Your task to perform on an android device: turn smart compose on in the gmail app Image 0: 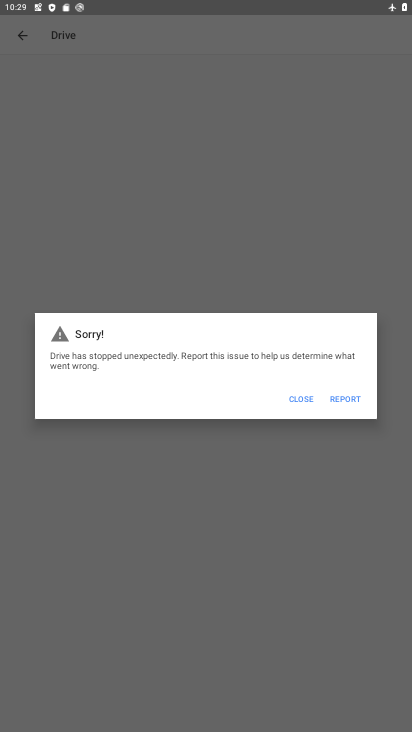
Step 0: press home button
Your task to perform on an android device: turn smart compose on in the gmail app Image 1: 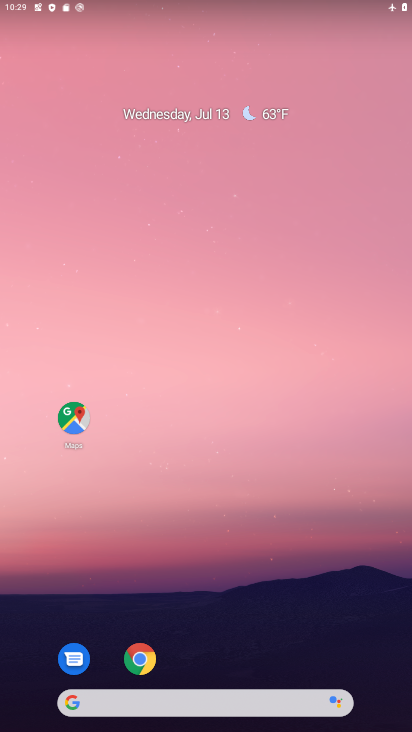
Step 1: drag from (287, 600) to (167, 85)
Your task to perform on an android device: turn smart compose on in the gmail app Image 2: 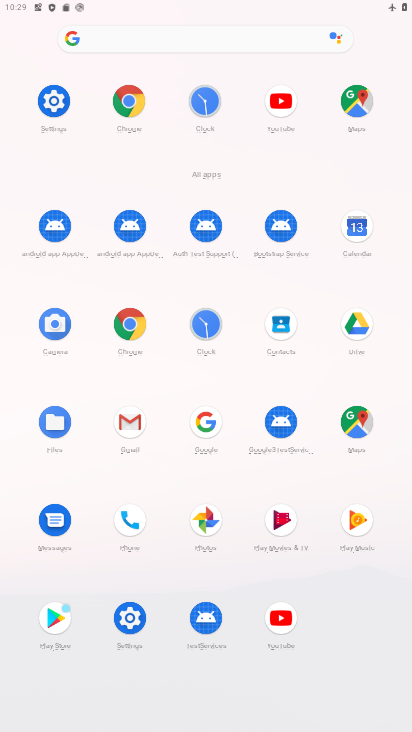
Step 2: click (133, 418)
Your task to perform on an android device: turn smart compose on in the gmail app Image 3: 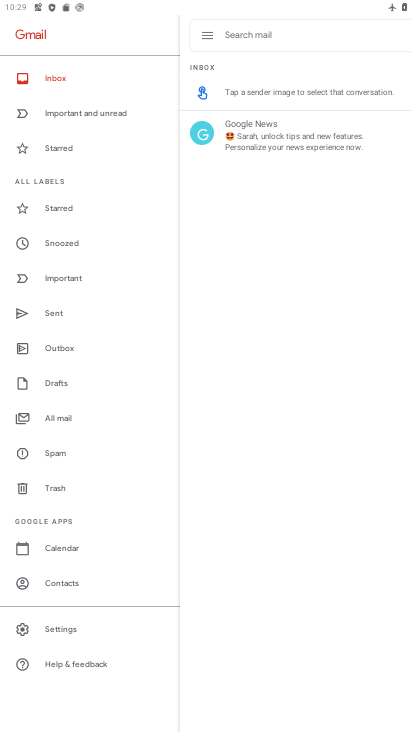
Step 3: click (74, 624)
Your task to perform on an android device: turn smart compose on in the gmail app Image 4: 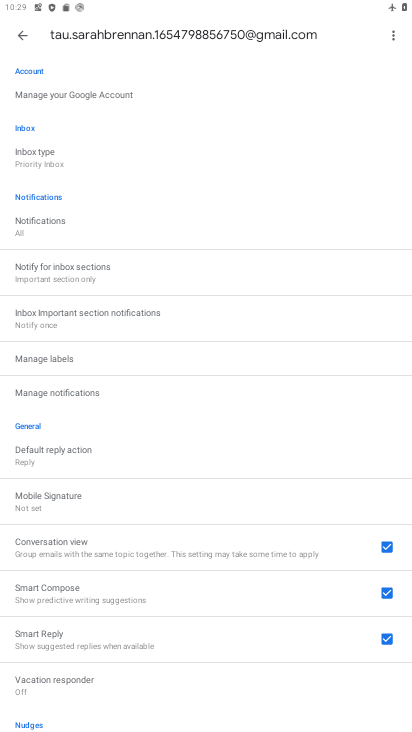
Step 4: task complete